Your task to perform on an android device: turn pop-ups on in chrome Image 0: 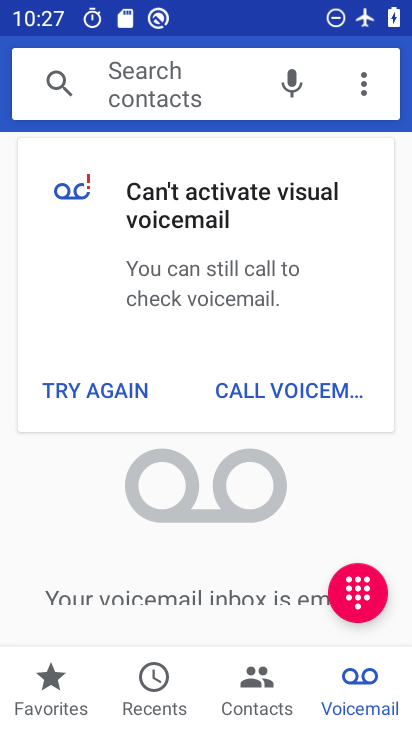
Step 0: press home button
Your task to perform on an android device: turn pop-ups on in chrome Image 1: 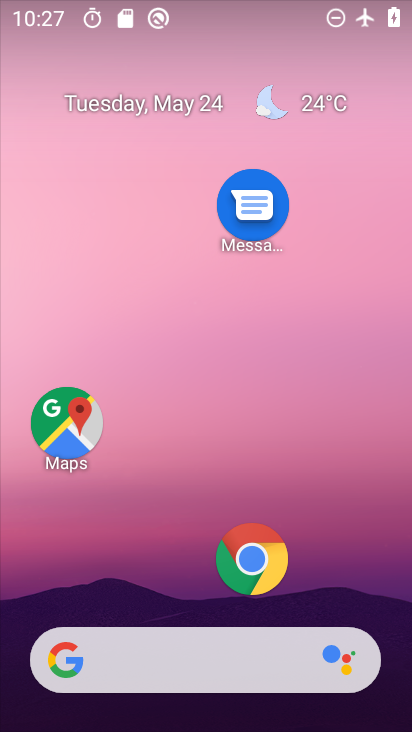
Step 1: click (245, 559)
Your task to perform on an android device: turn pop-ups on in chrome Image 2: 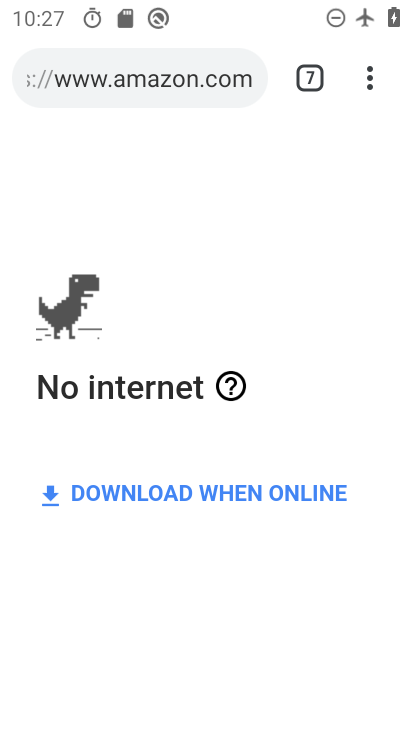
Step 2: drag from (363, 81) to (187, 619)
Your task to perform on an android device: turn pop-ups on in chrome Image 3: 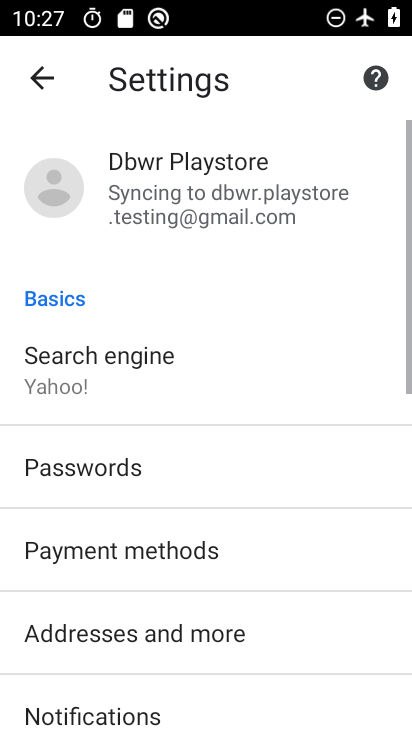
Step 3: drag from (233, 619) to (231, 277)
Your task to perform on an android device: turn pop-ups on in chrome Image 4: 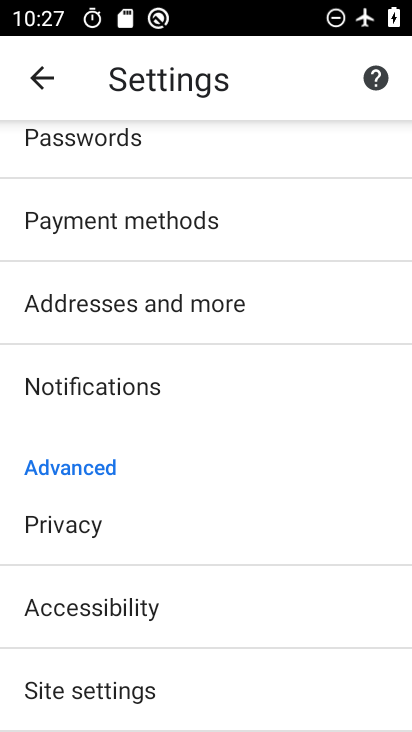
Step 4: drag from (250, 602) to (261, 344)
Your task to perform on an android device: turn pop-ups on in chrome Image 5: 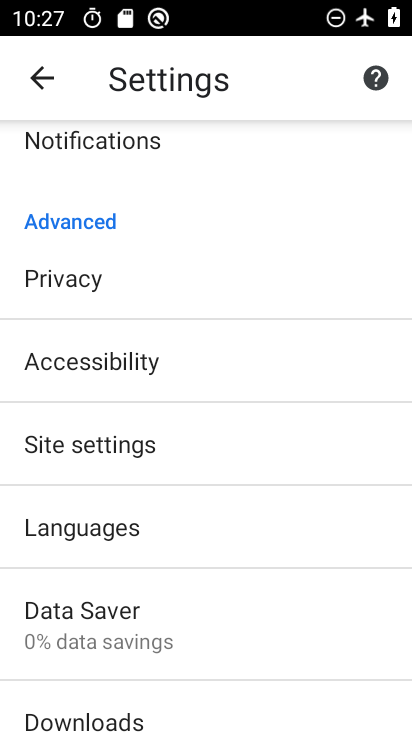
Step 5: click (207, 453)
Your task to perform on an android device: turn pop-ups on in chrome Image 6: 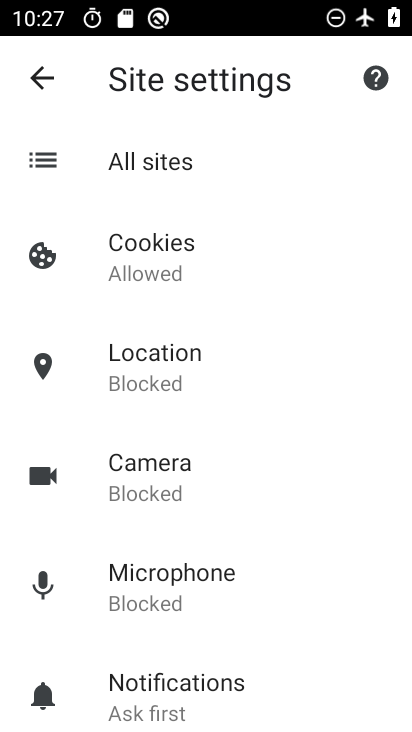
Step 6: drag from (233, 615) to (252, 283)
Your task to perform on an android device: turn pop-ups on in chrome Image 7: 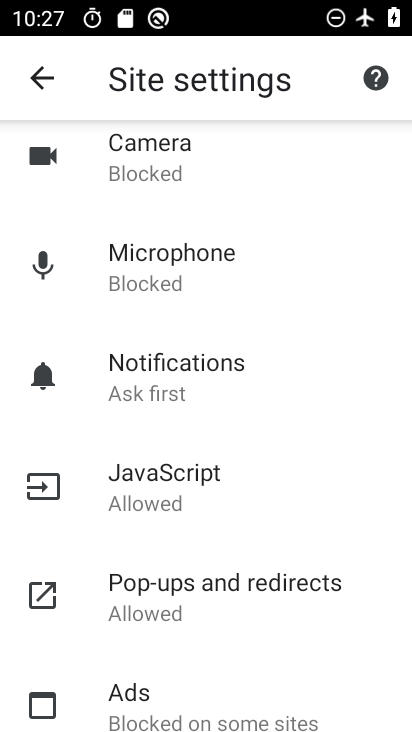
Step 7: click (251, 610)
Your task to perform on an android device: turn pop-ups on in chrome Image 8: 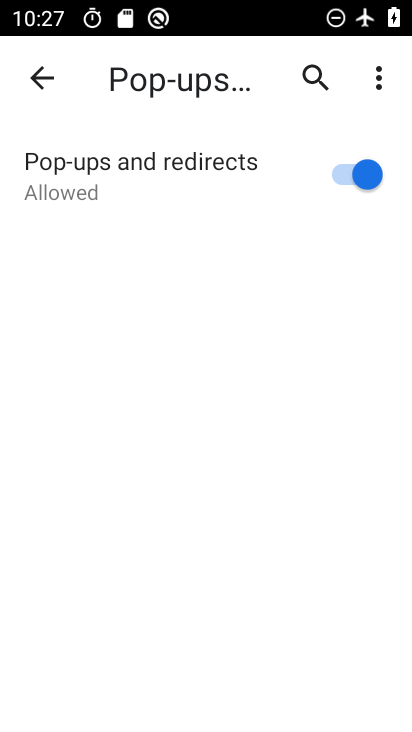
Step 8: task complete